Your task to perform on an android device: Check the weather Image 0: 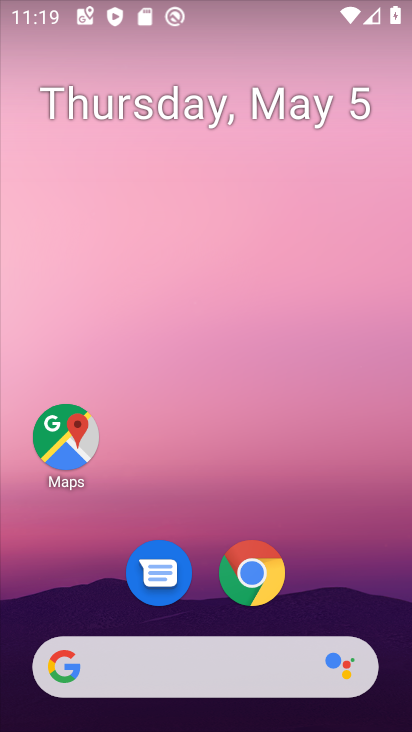
Step 0: drag from (349, 587) to (345, 287)
Your task to perform on an android device: Check the weather Image 1: 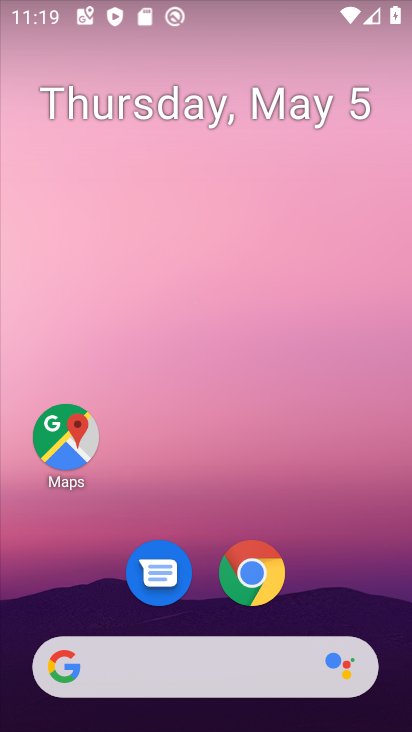
Step 1: drag from (320, 593) to (322, 176)
Your task to perform on an android device: Check the weather Image 2: 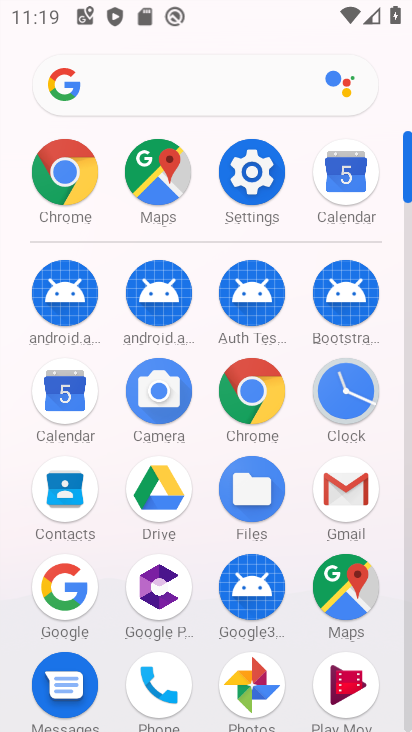
Step 2: click (246, 388)
Your task to perform on an android device: Check the weather Image 3: 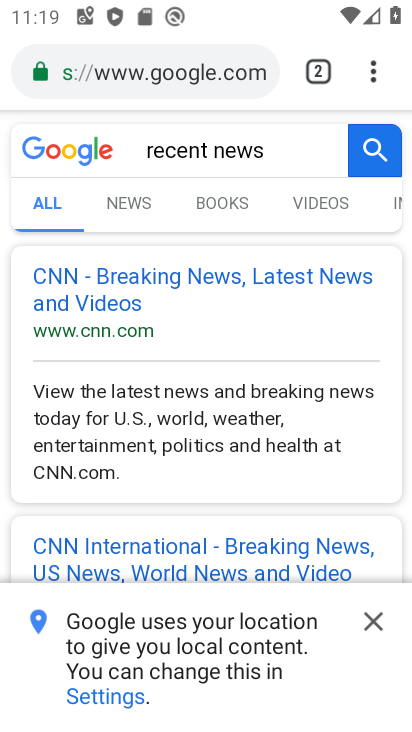
Step 3: click (370, 70)
Your task to perform on an android device: Check the weather Image 4: 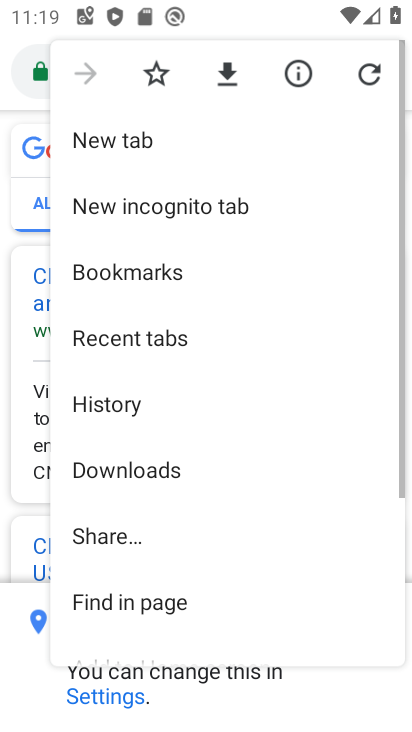
Step 4: click (148, 142)
Your task to perform on an android device: Check the weather Image 5: 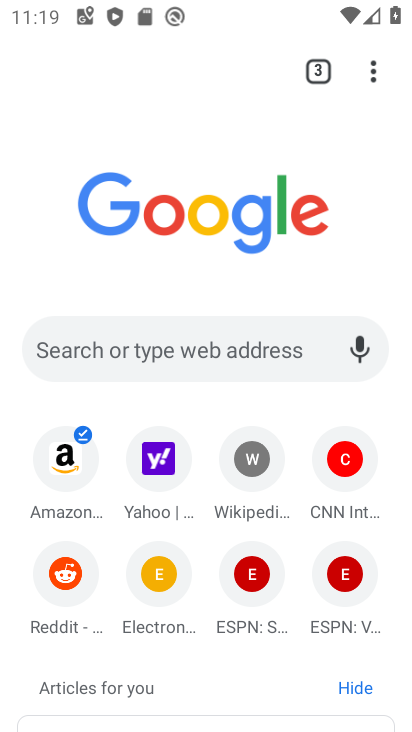
Step 5: click (170, 355)
Your task to perform on an android device: Check the weather Image 6: 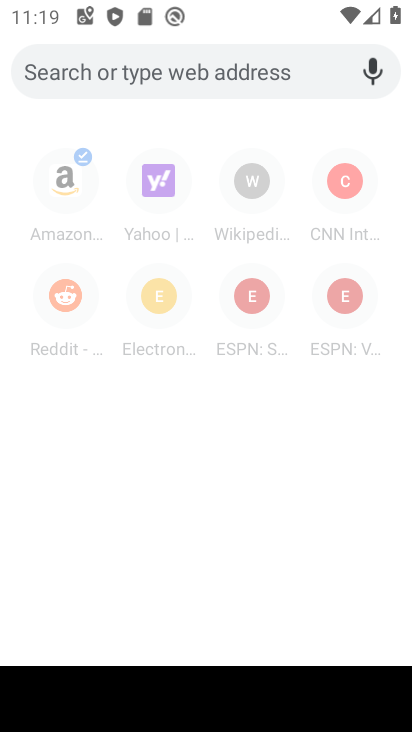
Step 6: type "weather"
Your task to perform on an android device: Check the weather Image 7: 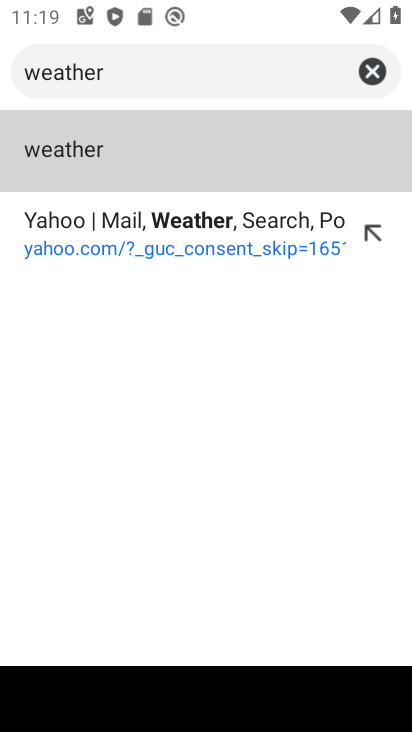
Step 7: click (216, 234)
Your task to perform on an android device: Check the weather Image 8: 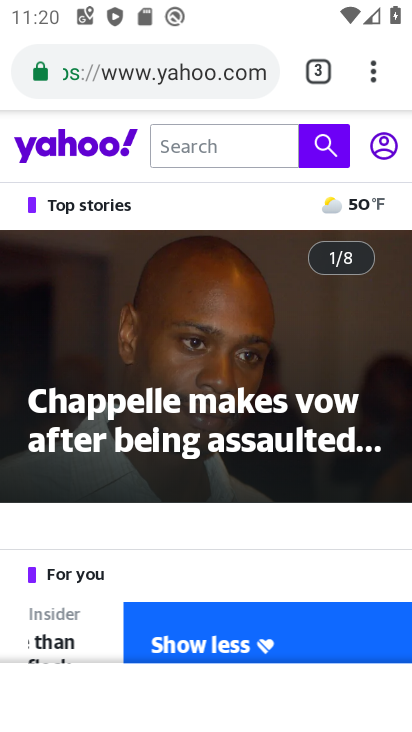
Step 8: click (360, 65)
Your task to perform on an android device: Check the weather Image 9: 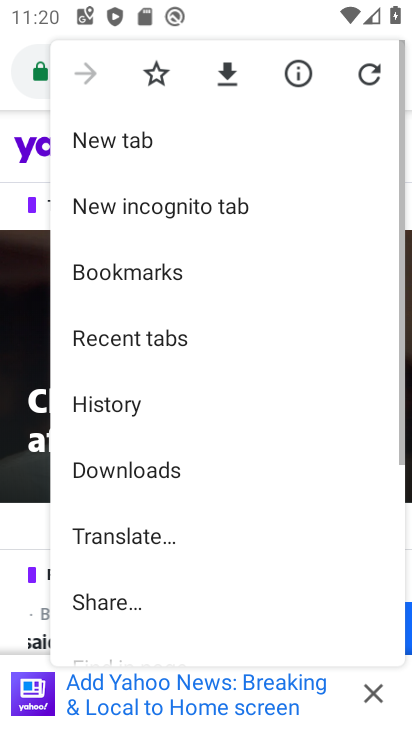
Step 9: click (152, 145)
Your task to perform on an android device: Check the weather Image 10: 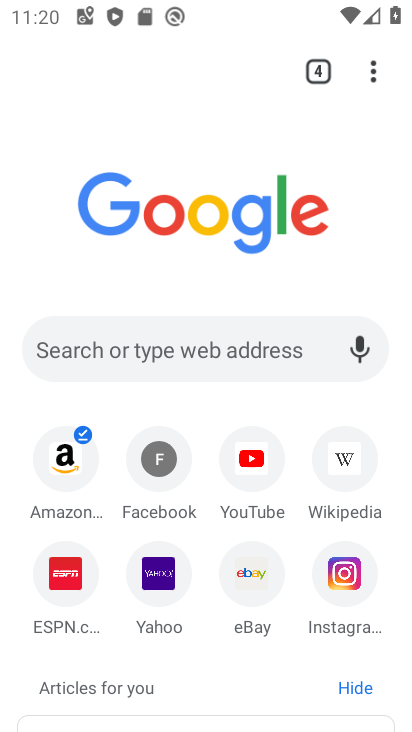
Step 10: click (223, 358)
Your task to perform on an android device: Check the weather Image 11: 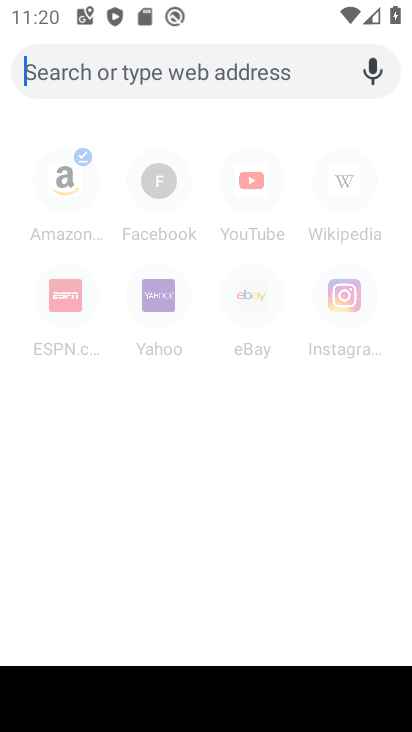
Step 11: click (205, 61)
Your task to perform on an android device: Check the weather Image 12: 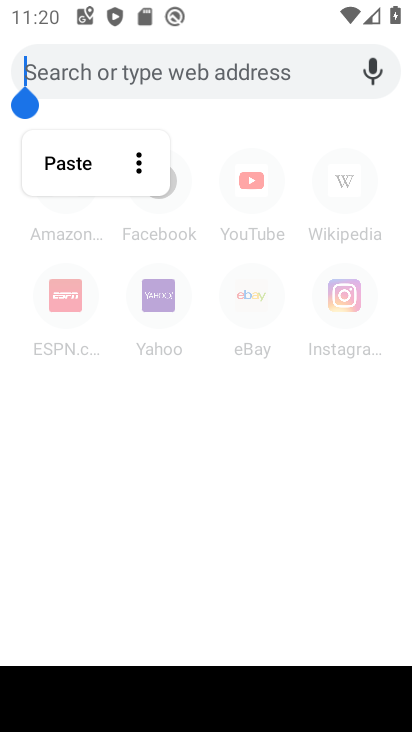
Step 12: type "Check the weather"
Your task to perform on an android device: Check the weather Image 13: 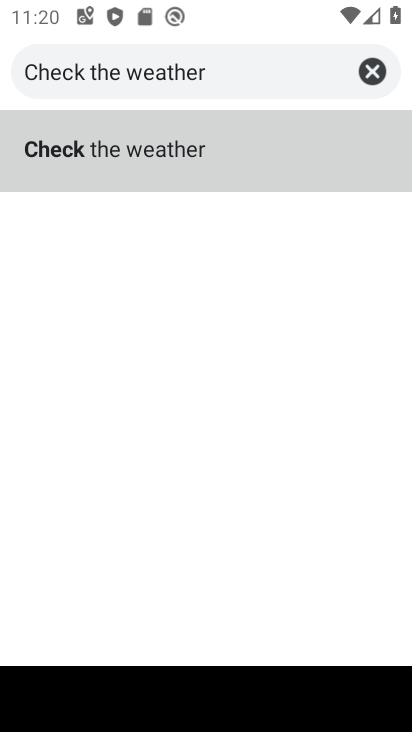
Step 13: click (175, 155)
Your task to perform on an android device: Check the weather Image 14: 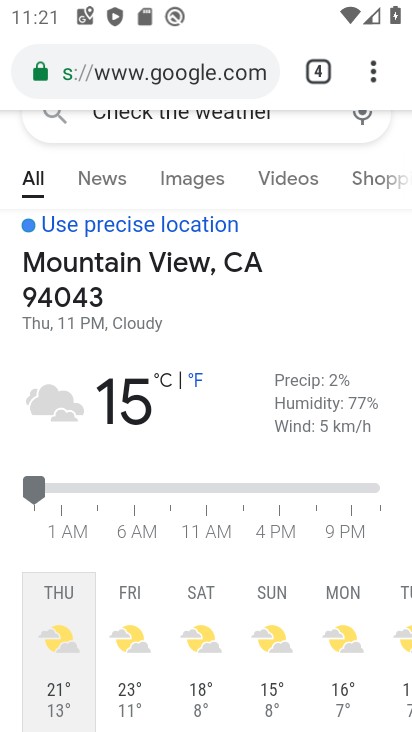
Step 14: task complete